Your task to perform on an android device: check google app version Image 0: 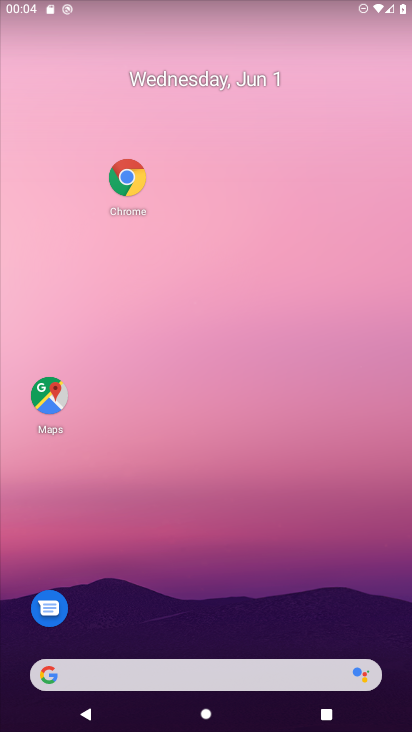
Step 0: press home button
Your task to perform on an android device: check google app version Image 1: 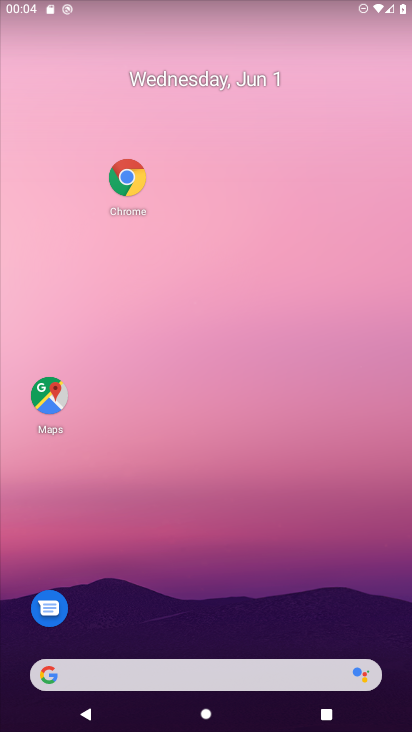
Step 1: drag from (276, 578) to (288, 48)
Your task to perform on an android device: check google app version Image 2: 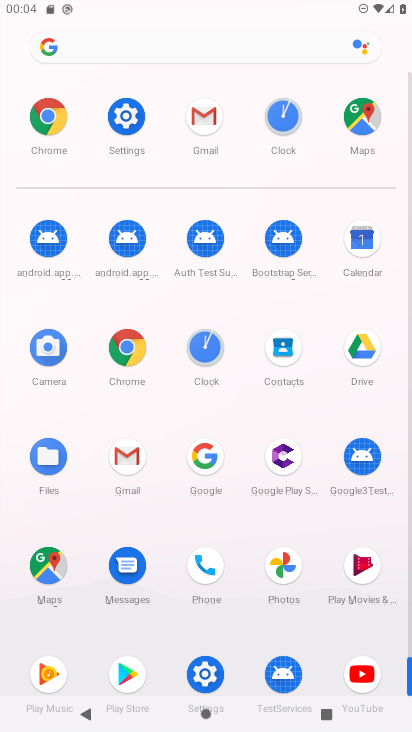
Step 2: click (407, 678)
Your task to perform on an android device: check google app version Image 3: 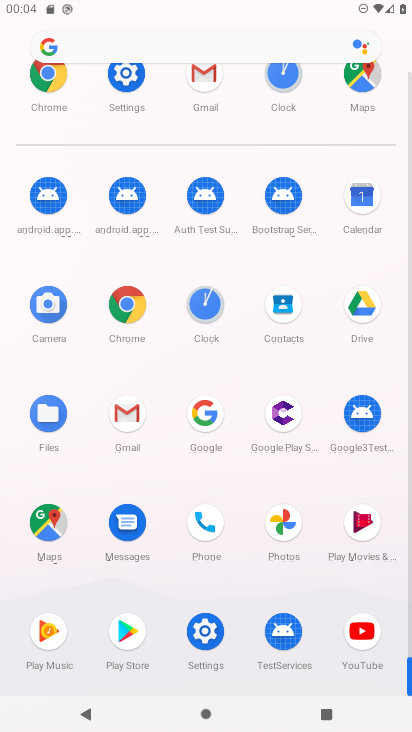
Step 3: click (200, 412)
Your task to perform on an android device: check google app version Image 4: 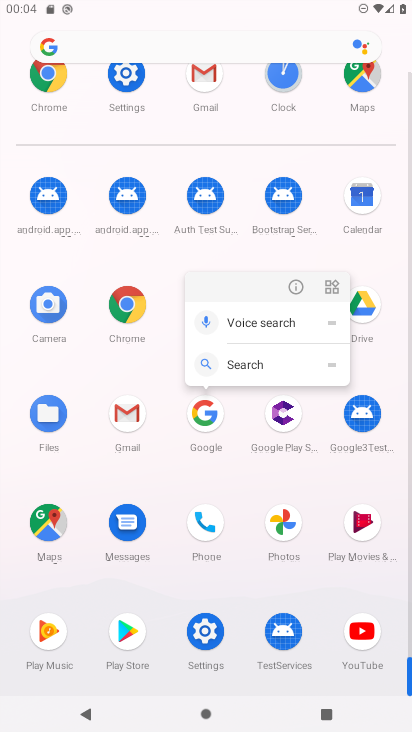
Step 4: click (297, 285)
Your task to perform on an android device: check google app version Image 5: 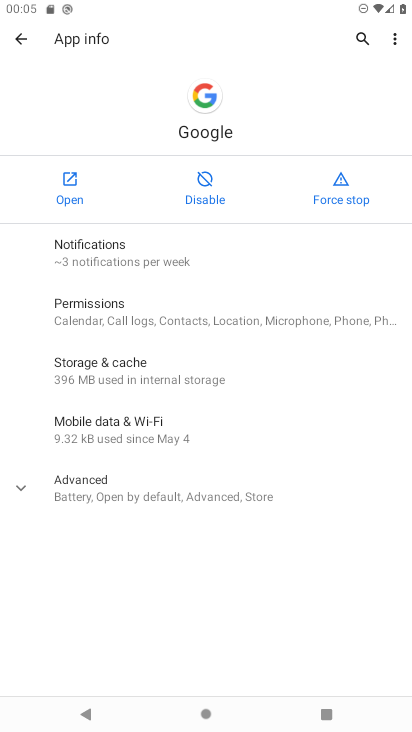
Step 5: click (109, 488)
Your task to perform on an android device: check google app version Image 6: 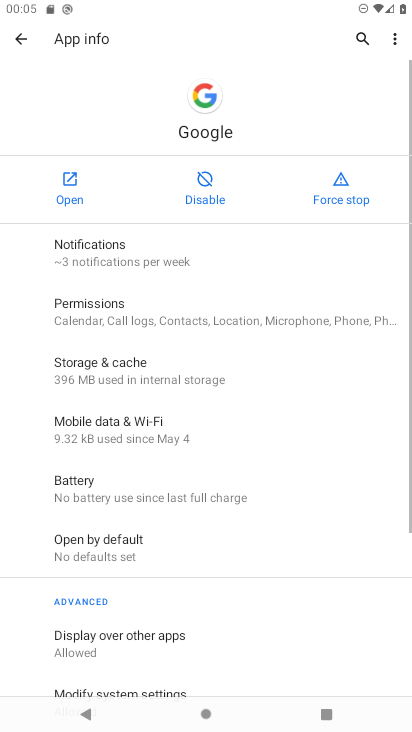
Step 6: task complete